Your task to perform on an android device: empty trash in the gmail app Image 0: 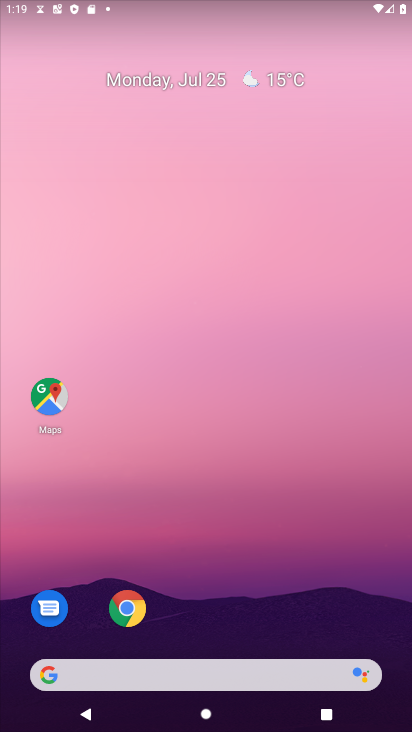
Step 0: drag from (246, 682) to (291, 64)
Your task to perform on an android device: empty trash in the gmail app Image 1: 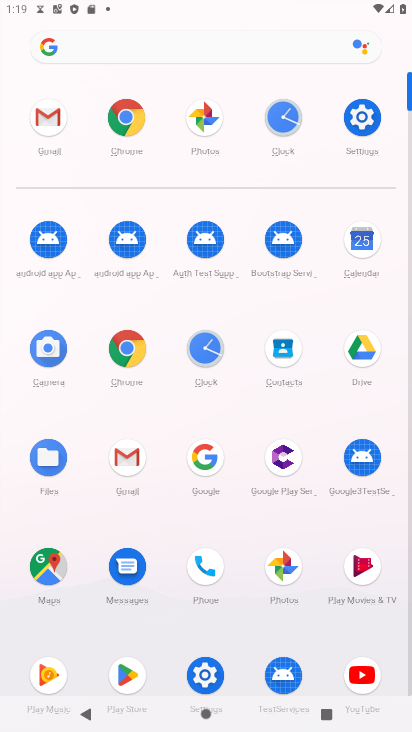
Step 1: click (128, 460)
Your task to perform on an android device: empty trash in the gmail app Image 2: 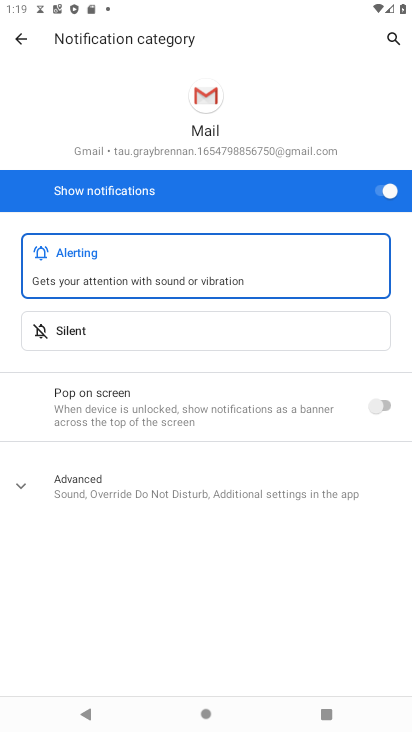
Step 2: press back button
Your task to perform on an android device: empty trash in the gmail app Image 3: 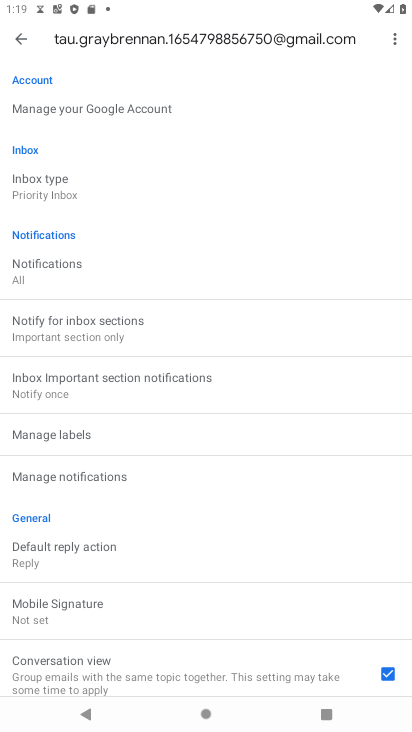
Step 3: press back button
Your task to perform on an android device: empty trash in the gmail app Image 4: 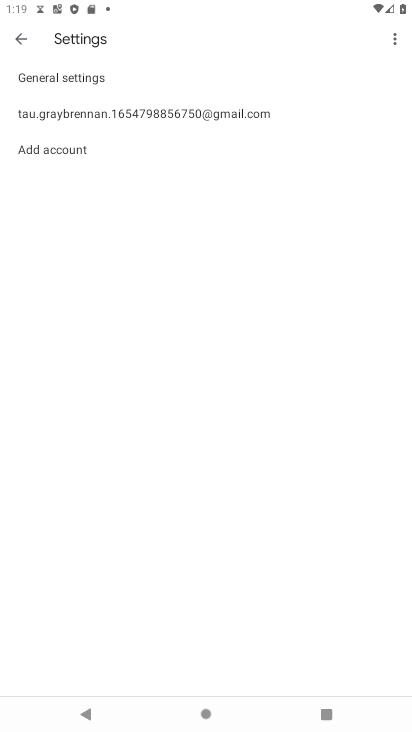
Step 4: click (139, 110)
Your task to perform on an android device: empty trash in the gmail app Image 5: 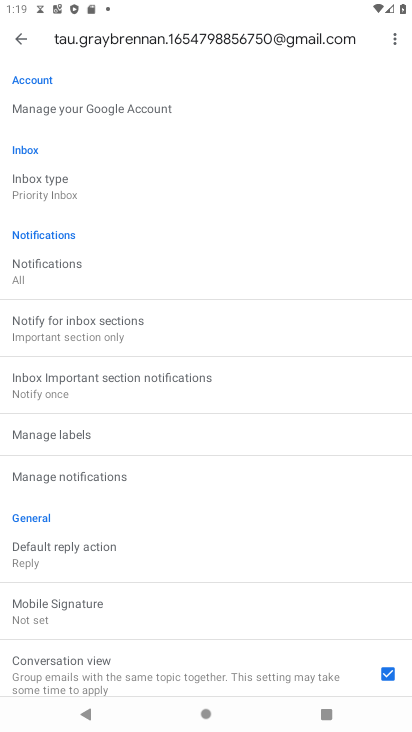
Step 5: press back button
Your task to perform on an android device: empty trash in the gmail app Image 6: 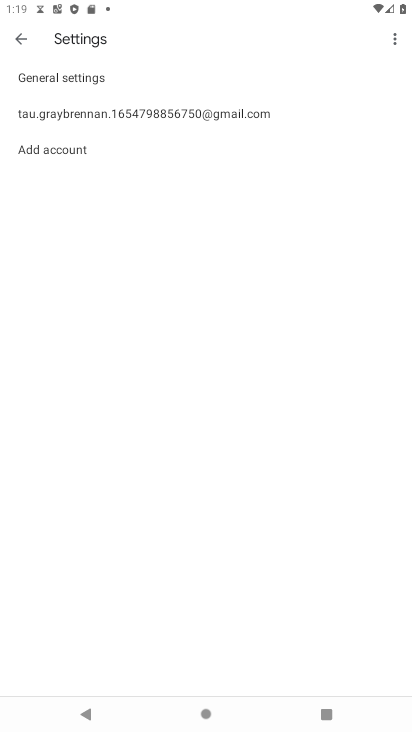
Step 6: press back button
Your task to perform on an android device: empty trash in the gmail app Image 7: 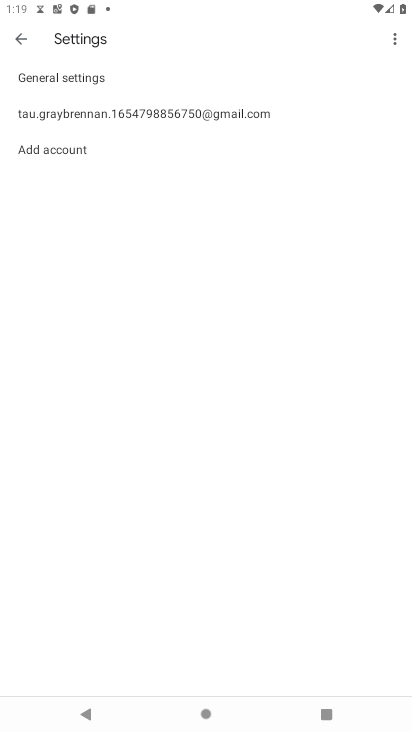
Step 7: press back button
Your task to perform on an android device: empty trash in the gmail app Image 8: 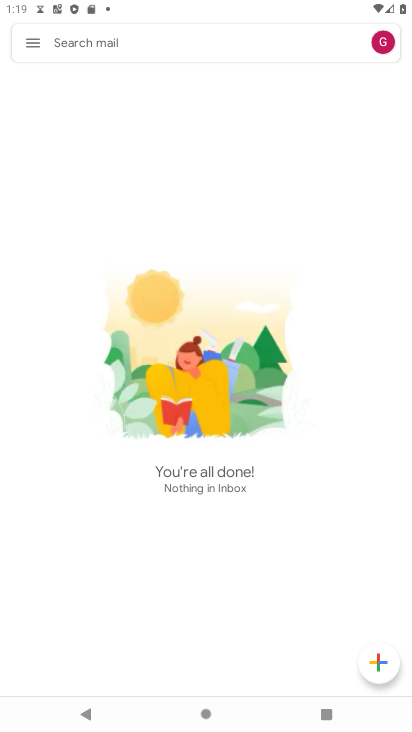
Step 8: click (29, 41)
Your task to perform on an android device: empty trash in the gmail app Image 9: 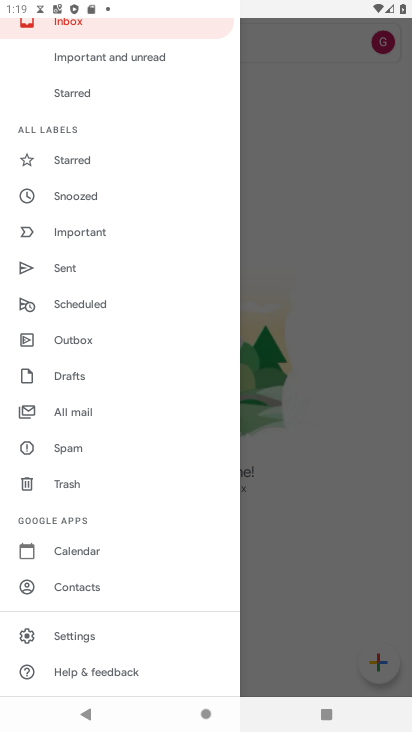
Step 9: click (65, 490)
Your task to perform on an android device: empty trash in the gmail app Image 10: 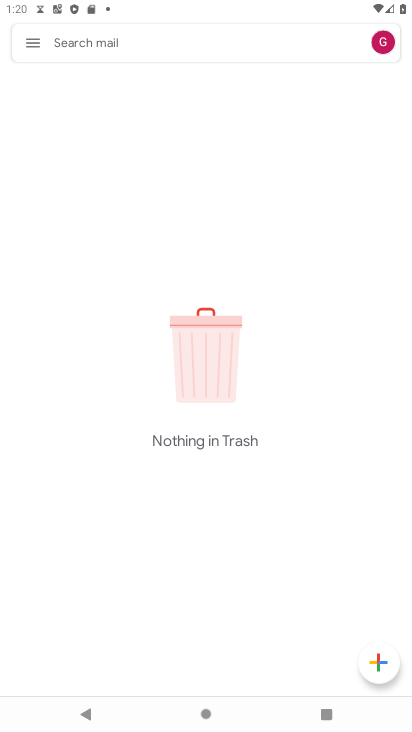
Step 10: task complete